Your task to perform on an android device: Clear the shopping cart on amazon. Add "rayovac triple a" to the cart on amazon Image 0: 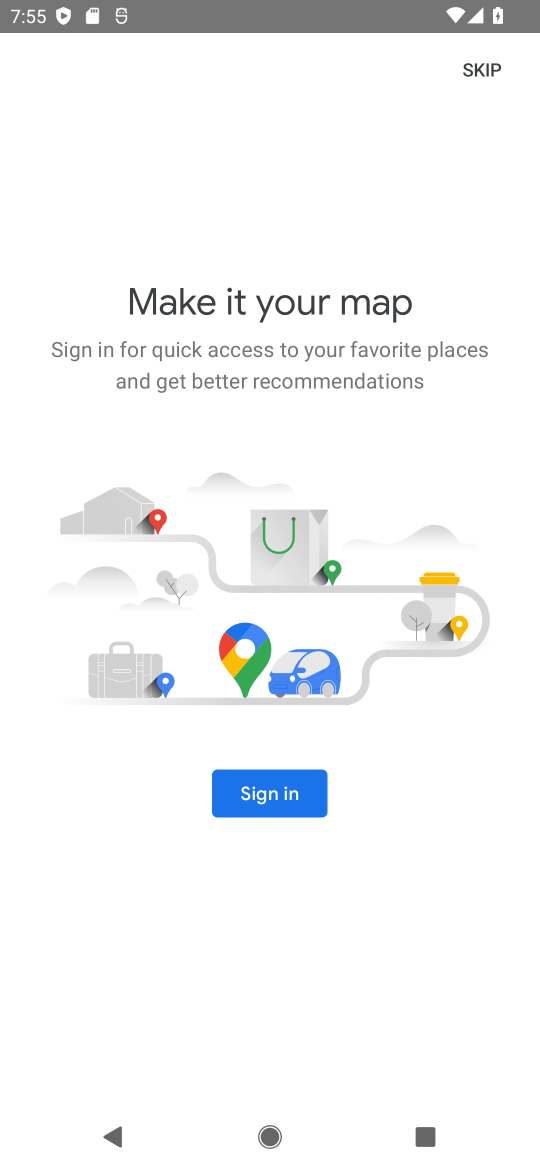
Step 0: press home button
Your task to perform on an android device: Clear the shopping cart on amazon. Add "rayovac triple a" to the cart on amazon Image 1: 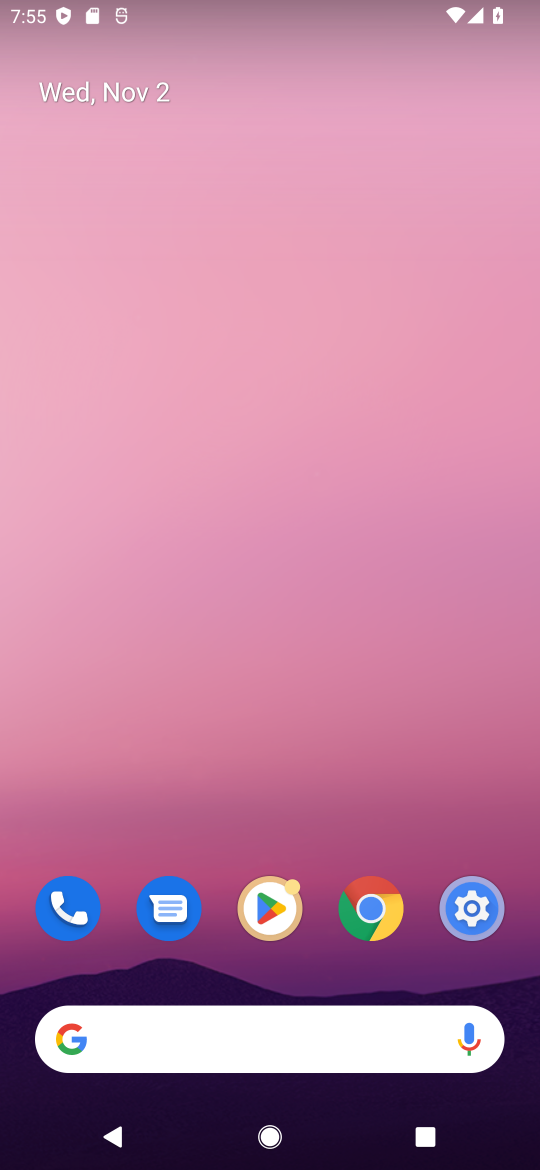
Step 1: click (371, 1053)
Your task to perform on an android device: Clear the shopping cart on amazon. Add "rayovac triple a" to the cart on amazon Image 2: 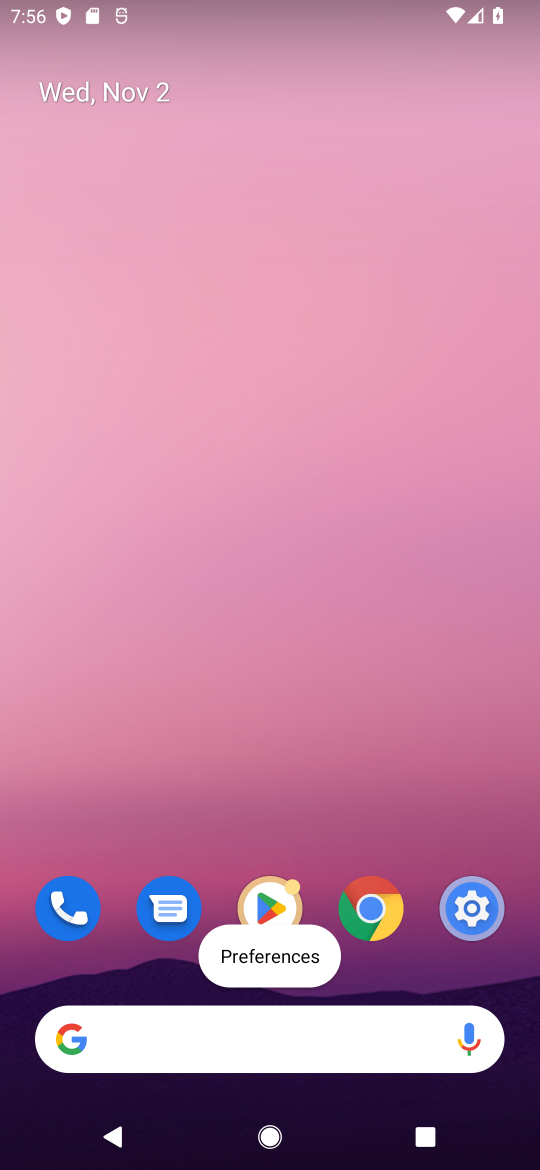
Step 2: click (309, 1055)
Your task to perform on an android device: Clear the shopping cart on amazon. Add "rayovac triple a" to the cart on amazon Image 3: 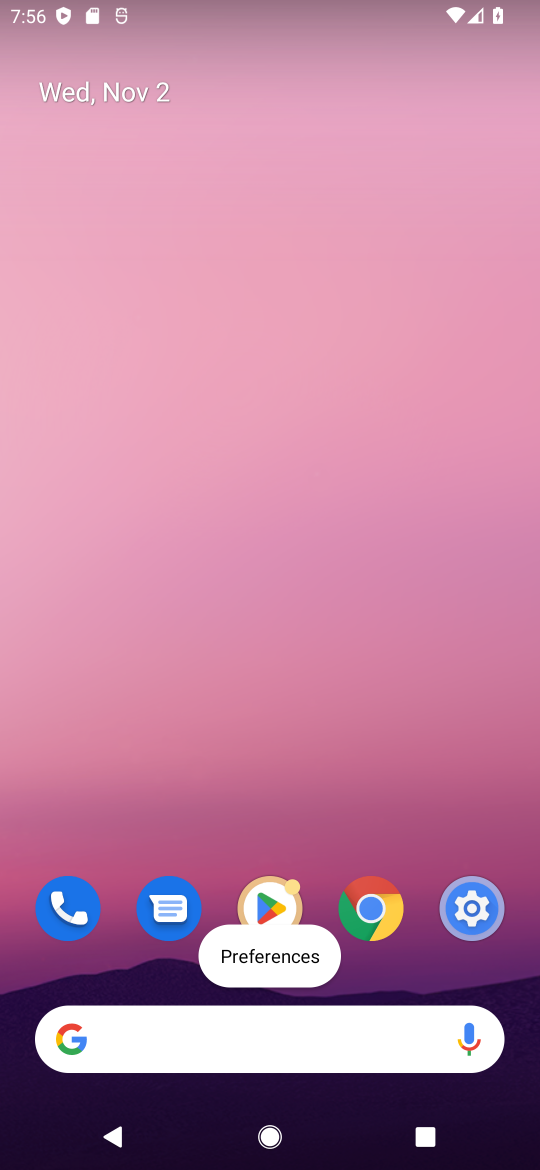
Step 3: click (309, 1055)
Your task to perform on an android device: Clear the shopping cart on amazon. Add "rayovac triple a" to the cart on amazon Image 4: 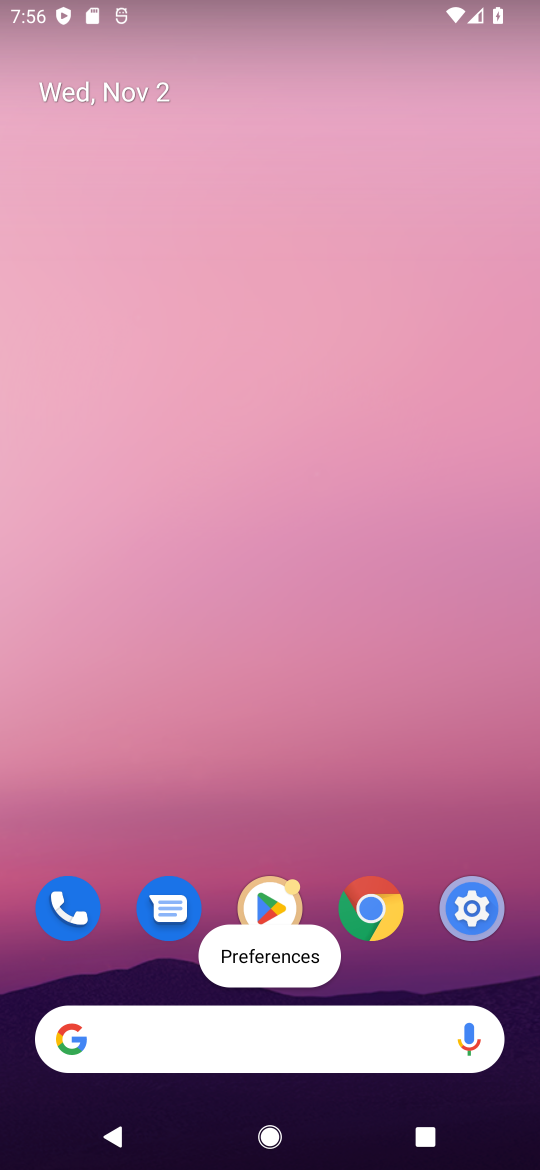
Step 4: click (284, 1050)
Your task to perform on an android device: Clear the shopping cart on amazon. Add "rayovac triple a" to the cart on amazon Image 5: 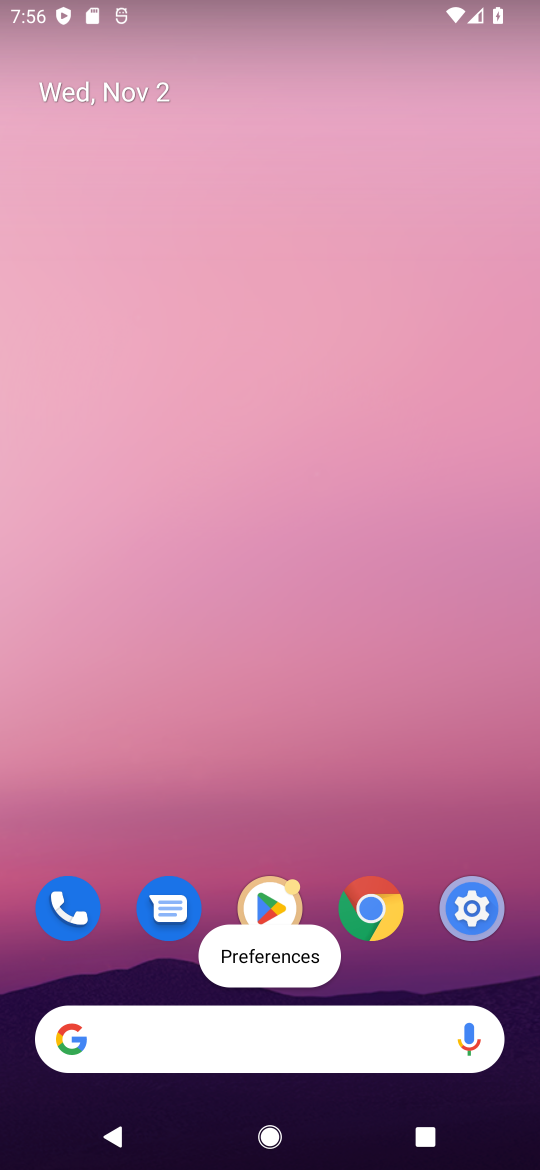
Step 5: click (284, 1050)
Your task to perform on an android device: Clear the shopping cart on amazon. Add "rayovac triple a" to the cart on amazon Image 6: 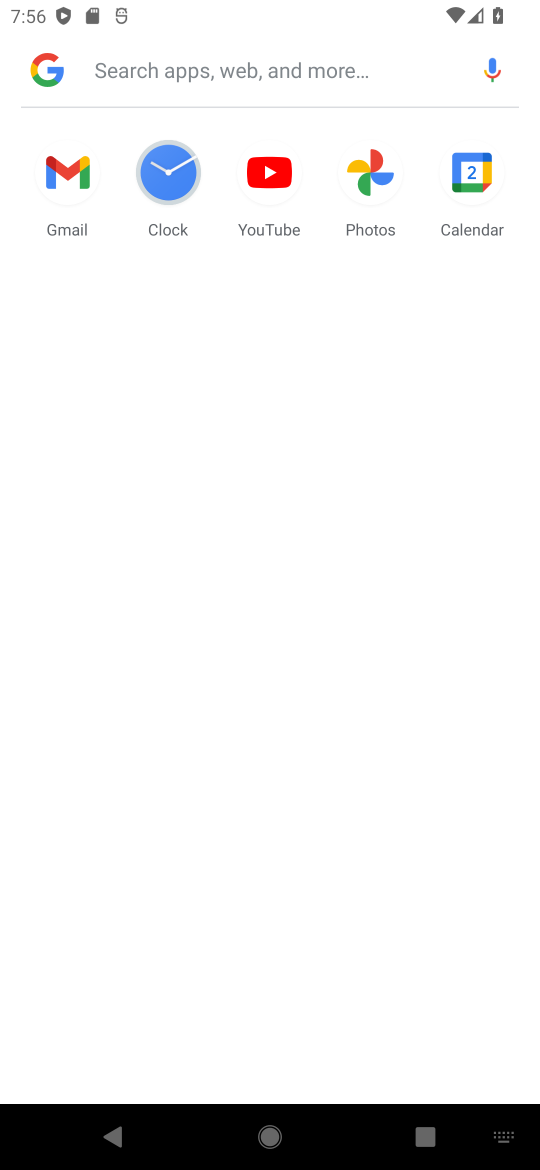
Step 6: type "amazon"
Your task to perform on an android device: Clear the shopping cart on amazon. Add "rayovac triple a" to the cart on amazon Image 7: 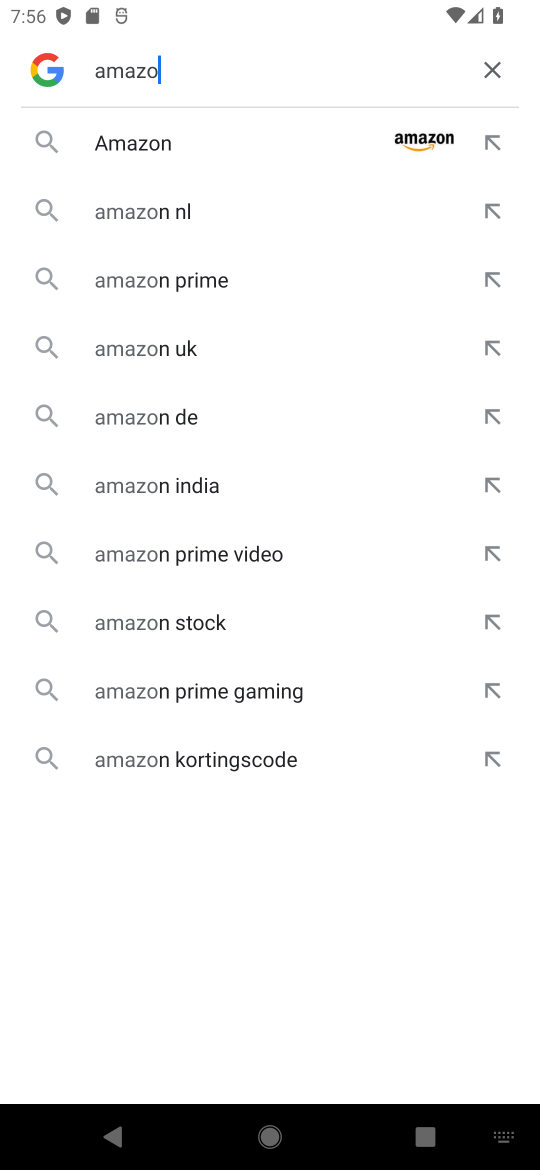
Step 7: press enter
Your task to perform on an android device: Clear the shopping cart on amazon. Add "rayovac triple a" to the cart on amazon Image 8: 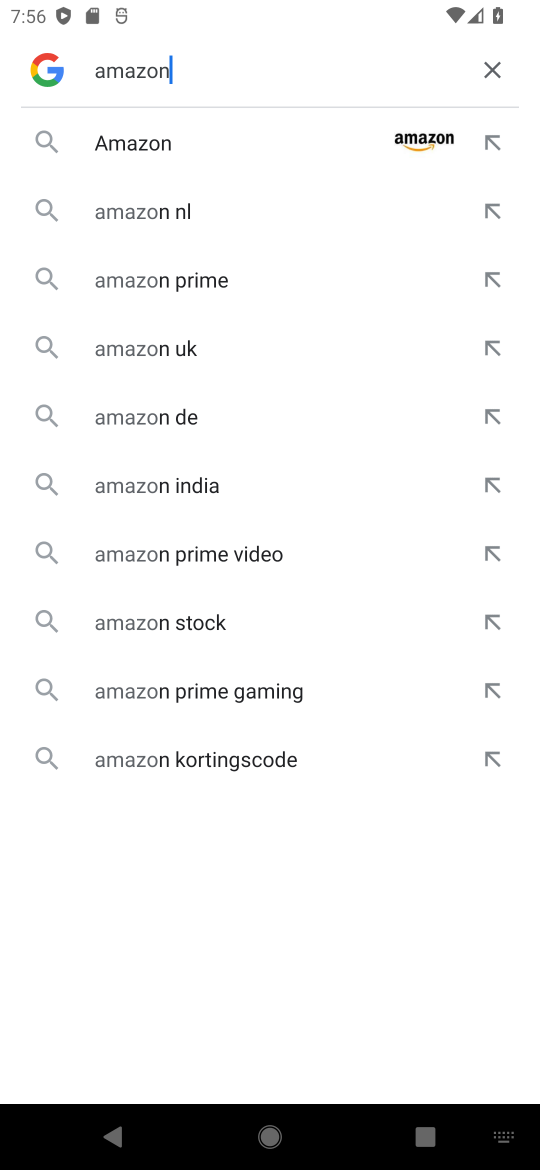
Step 8: type ""
Your task to perform on an android device: Clear the shopping cart on amazon. Add "rayovac triple a" to the cart on amazon Image 9: 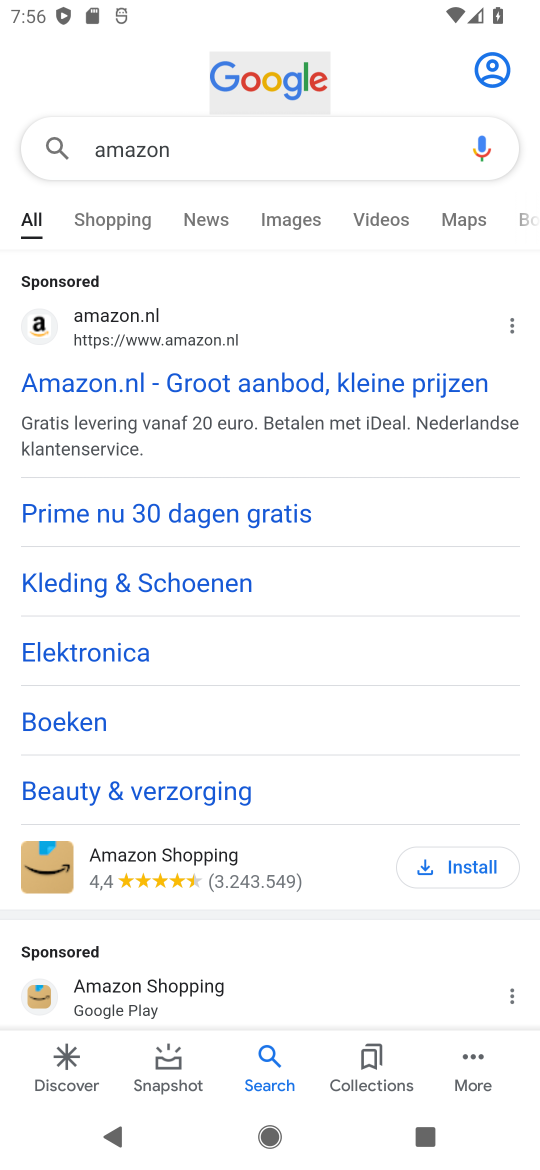
Step 9: click (228, 387)
Your task to perform on an android device: Clear the shopping cart on amazon. Add "rayovac triple a" to the cart on amazon Image 10: 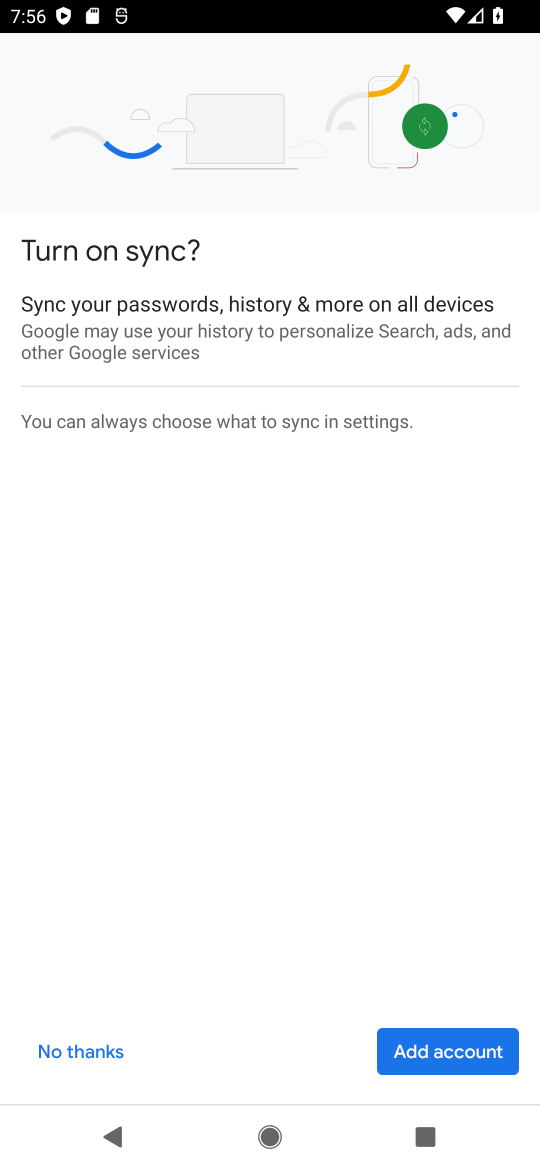
Step 10: click (480, 1055)
Your task to perform on an android device: Clear the shopping cart on amazon. Add "rayovac triple a" to the cart on amazon Image 11: 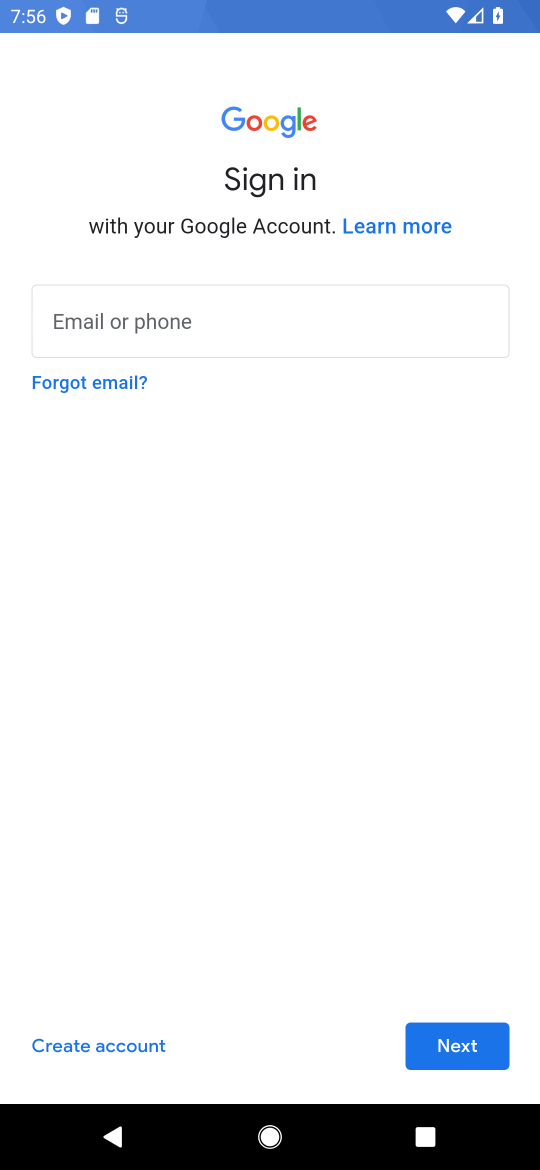
Step 11: click (478, 1053)
Your task to perform on an android device: Clear the shopping cart on amazon. Add "rayovac triple a" to the cart on amazon Image 12: 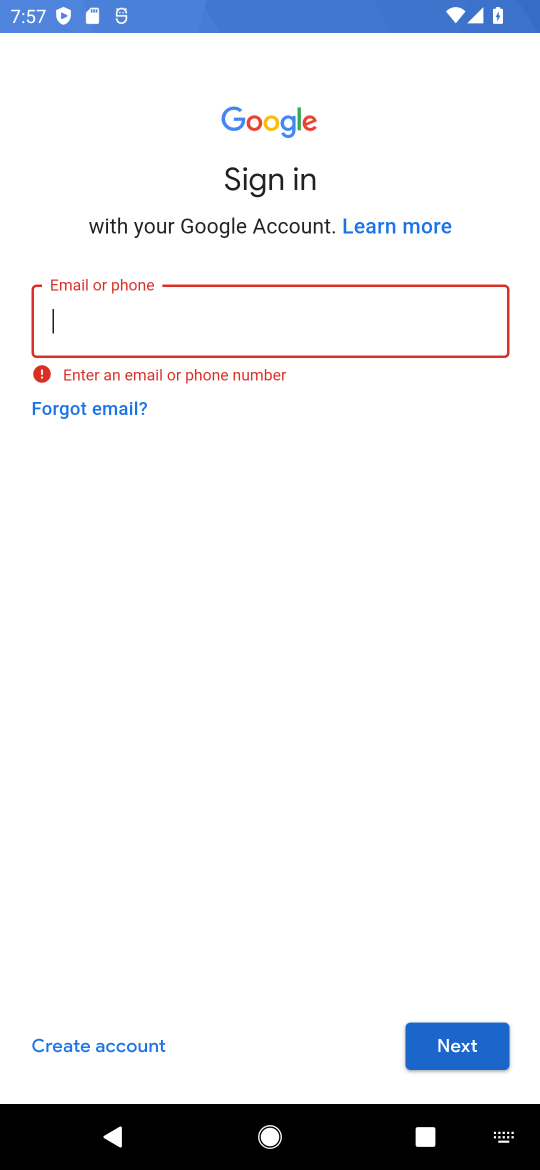
Step 12: task complete